Your task to perform on an android device: turn notification dots on Image 0: 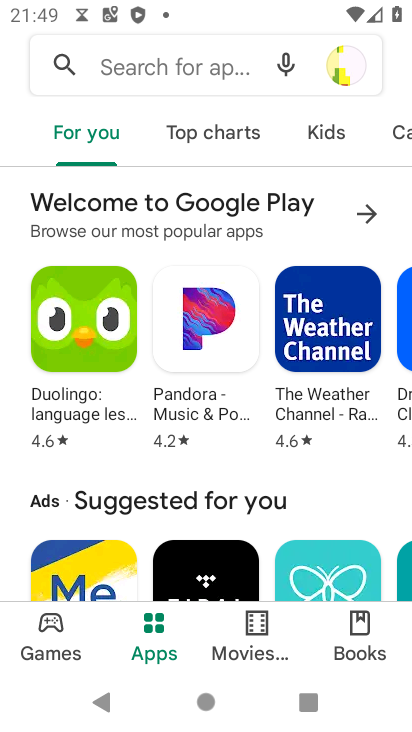
Step 0: press home button
Your task to perform on an android device: turn notification dots on Image 1: 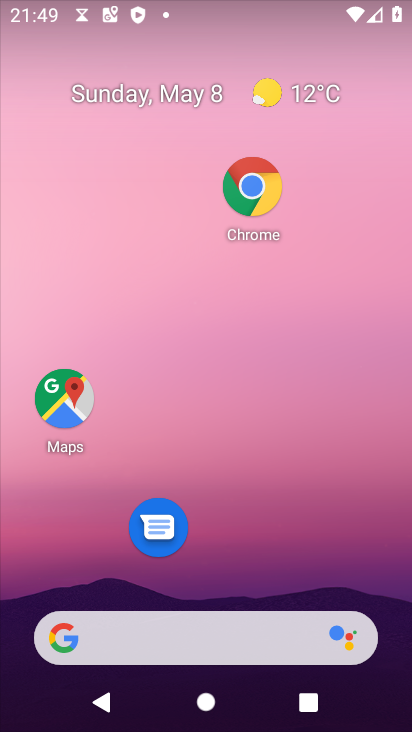
Step 1: drag from (249, 579) to (209, 219)
Your task to perform on an android device: turn notification dots on Image 2: 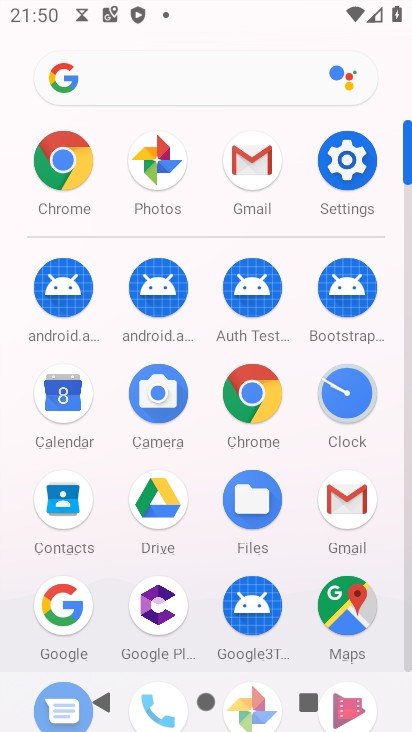
Step 2: click (332, 164)
Your task to perform on an android device: turn notification dots on Image 3: 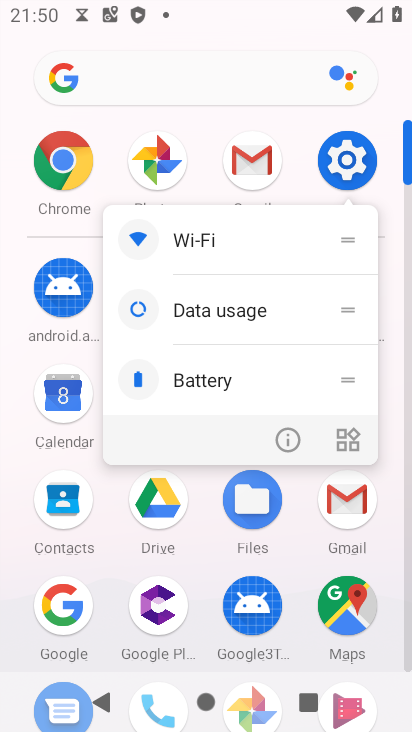
Step 3: click (340, 160)
Your task to perform on an android device: turn notification dots on Image 4: 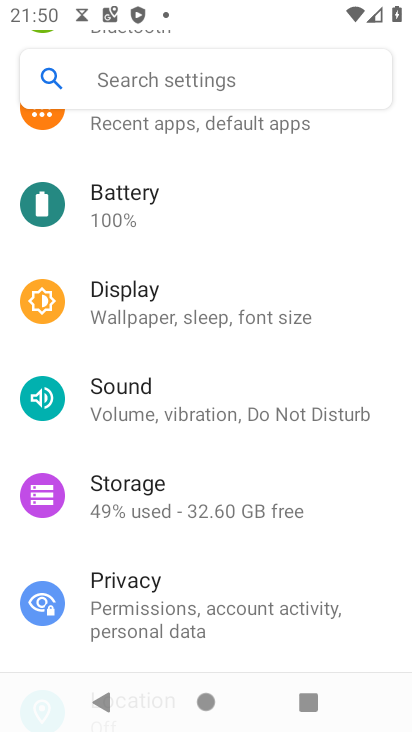
Step 4: click (297, 70)
Your task to perform on an android device: turn notification dots on Image 5: 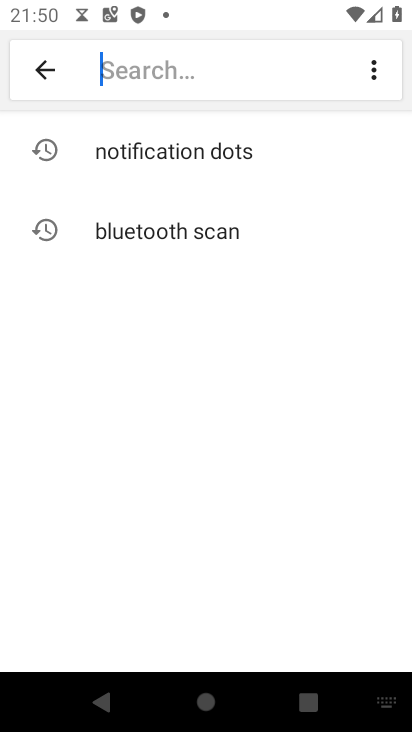
Step 5: type "notification dots "
Your task to perform on an android device: turn notification dots on Image 6: 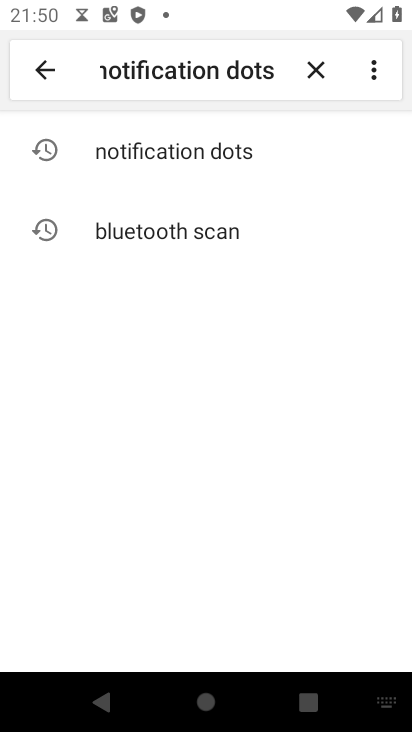
Step 6: click (226, 148)
Your task to perform on an android device: turn notification dots on Image 7: 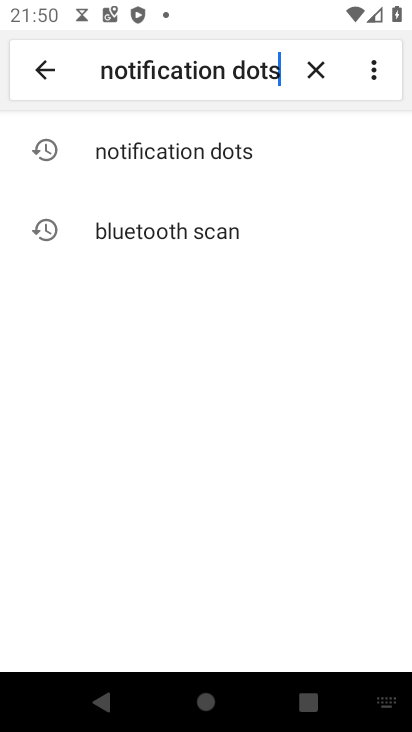
Step 7: click (224, 149)
Your task to perform on an android device: turn notification dots on Image 8: 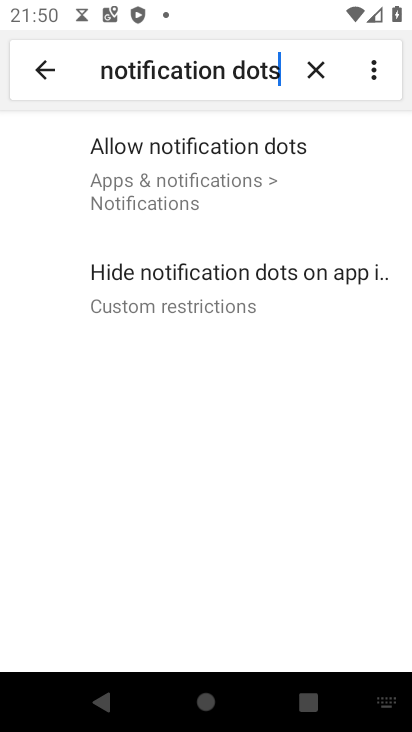
Step 8: click (205, 161)
Your task to perform on an android device: turn notification dots on Image 9: 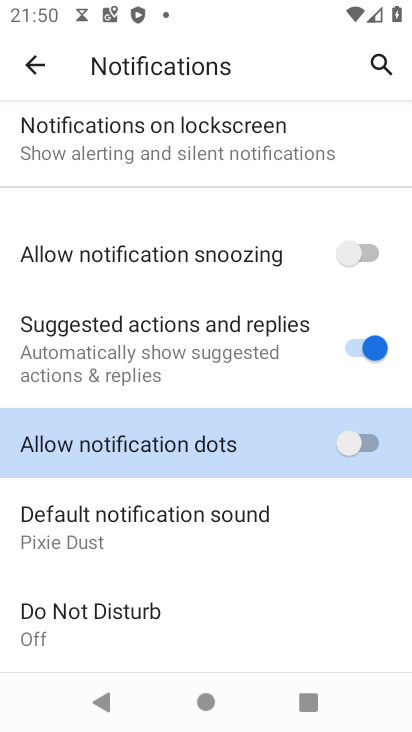
Step 9: click (367, 448)
Your task to perform on an android device: turn notification dots on Image 10: 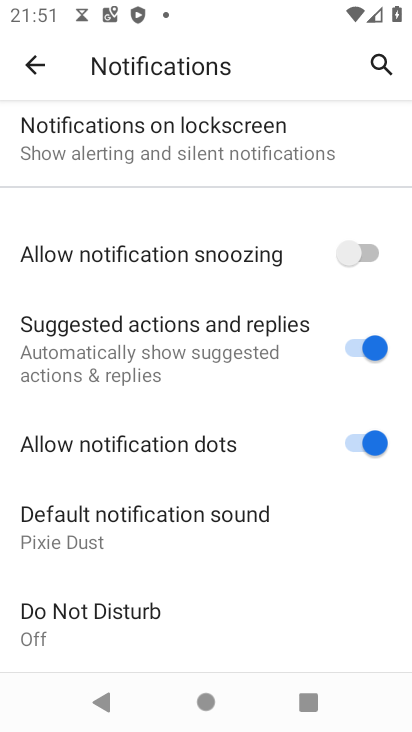
Step 10: task complete